Your task to perform on an android device: toggle notifications settings in the gmail app Image 0: 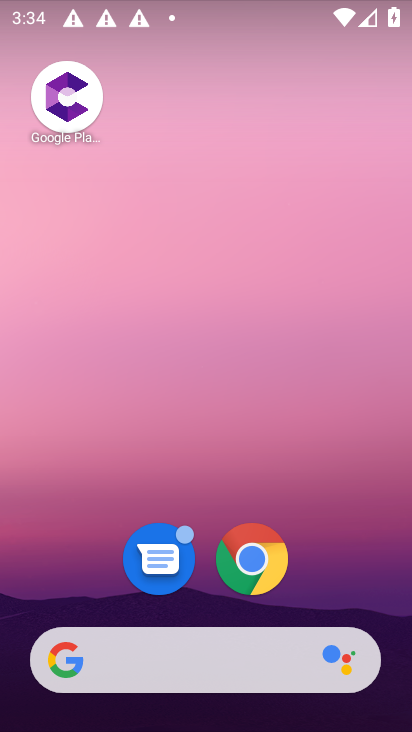
Step 0: drag from (318, 514) to (357, 56)
Your task to perform on an android device: toggle notifications settings in the gmail app Image 1: 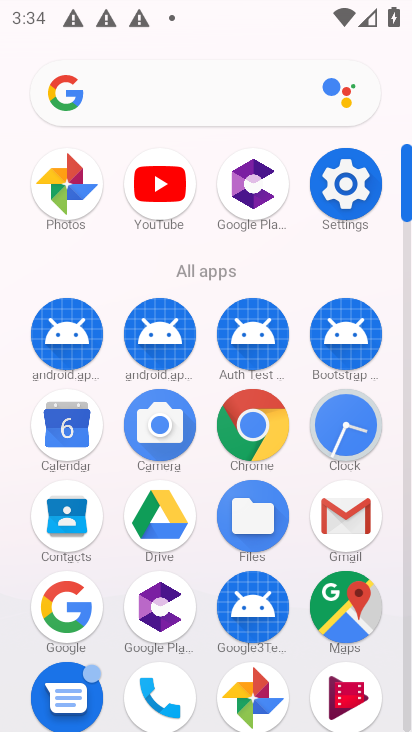
Step 1: click (340, 517)
Your task to perform on an android device: toggle notifications settings in the gmail app Image 2: 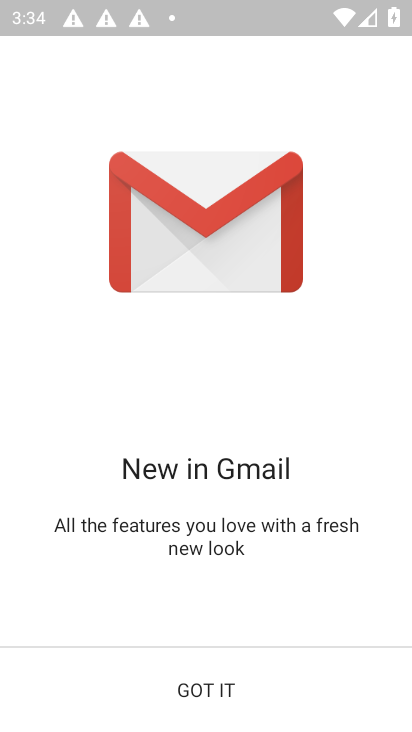
Step 2: click (205, 691)
Your task to perform on an android device: toggle notifications settings in the gmail app Image 3: 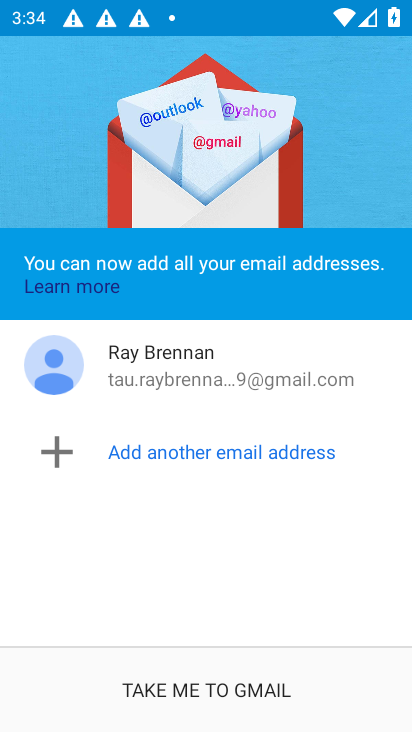
Step 3: click (201, 687)
Your task to perform on an android device: toggle notifications settings in the gmail app Image 4: 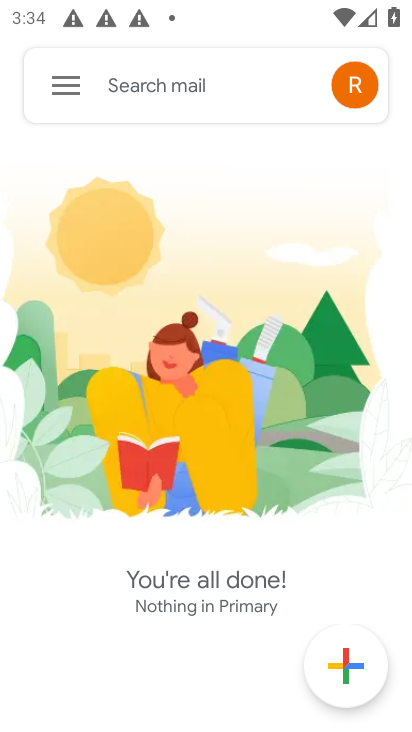
Step 4: click (68, 91)
Your task to perform on an android device: toggle notifications settings in the gmail app Image 5: 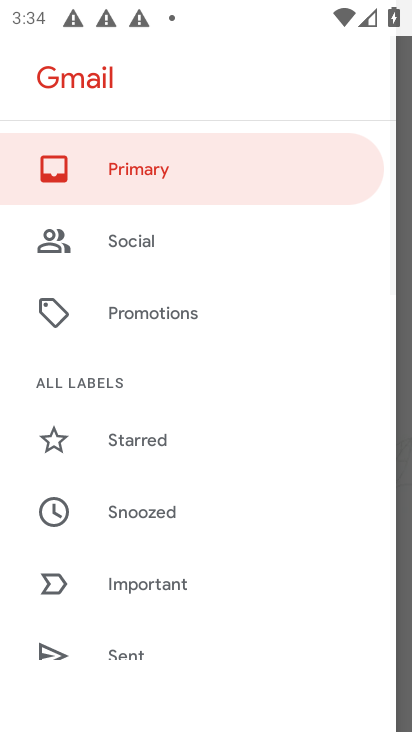
Step 5: drag from (212, 604) to (246, 0)
Your task to perform on an android device: toggle notifications settings in the gmail app Image 6: 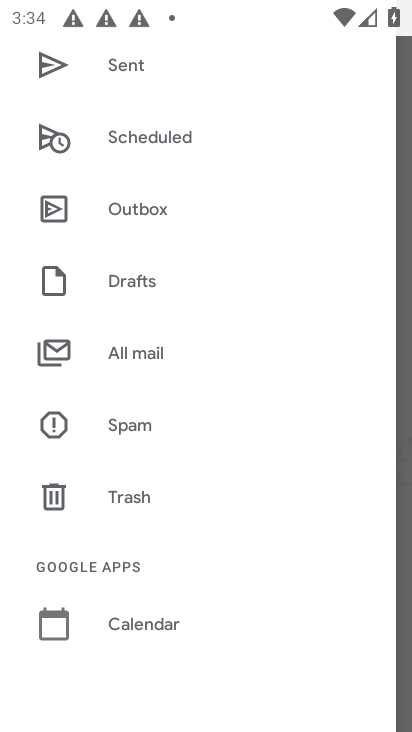
Step 6: drag from (243, 501) to (250, 0)
Your task to perform on an android device: toggle notifications settings in the gmail app Image 7: 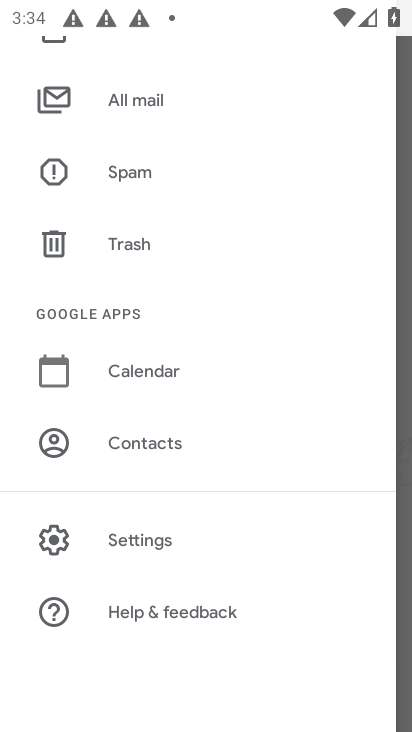
Step 7: click (150, 539)
Your task to perform on an android device: toggle notifications settings in the gmail app Image 8: 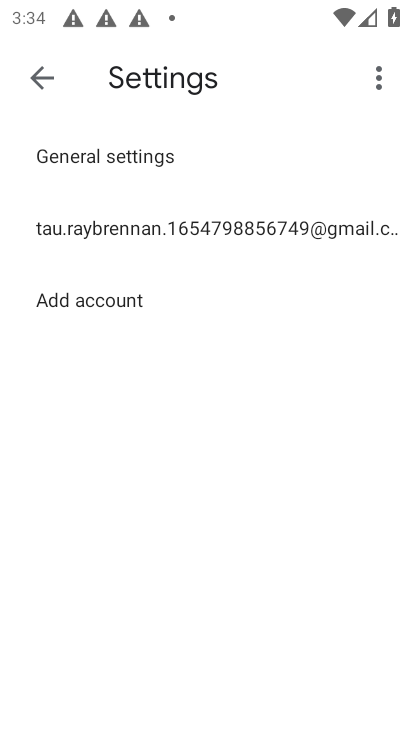
Step 8: click (206, 222)
Your task to perform on an android device: toggle notifications settings in the gmail app Image 9: 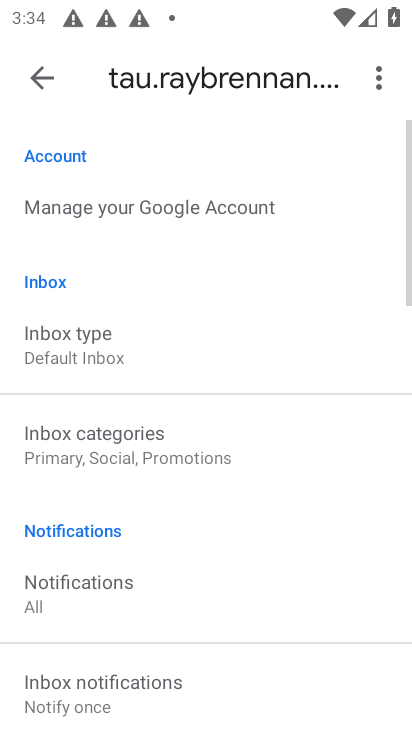
Step 9: drag from (236, 549) to (259, 149)
Your task to perform on an android device: toggle notifications settings in the gmail app Image 10: 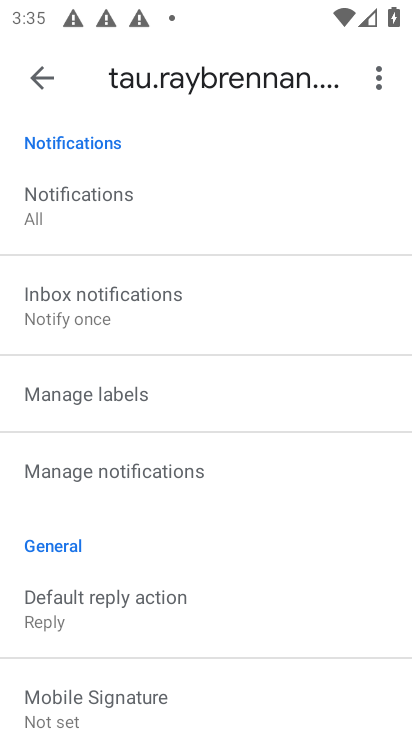
Step 10: click (178, 471)
Your task to perform on an android device: toggle notifications settings in the gmail app Image 11: 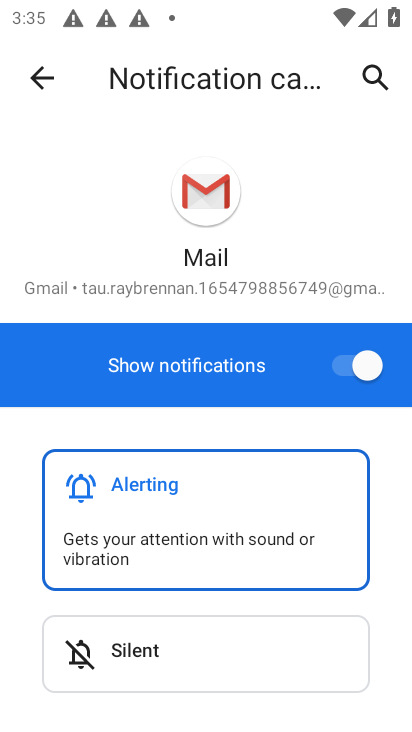
Step 11: click (347, 371)
Your task to perform on an android device: toggle notifications settings in the gmail app Image 12: 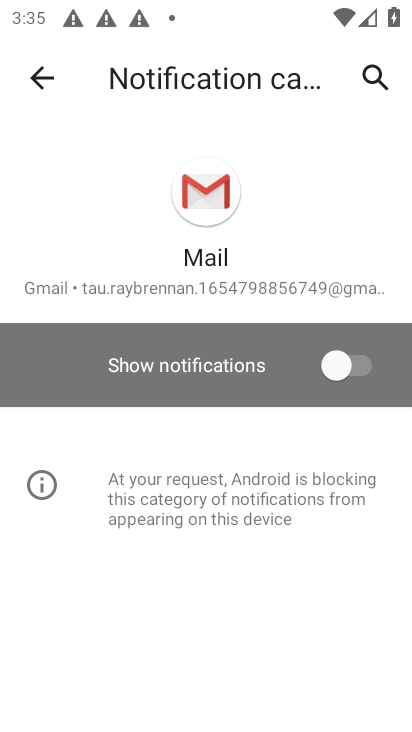
Step 12: task complete